Your task to perform on an android device: Go to calendar. Show me events next week Image 0: 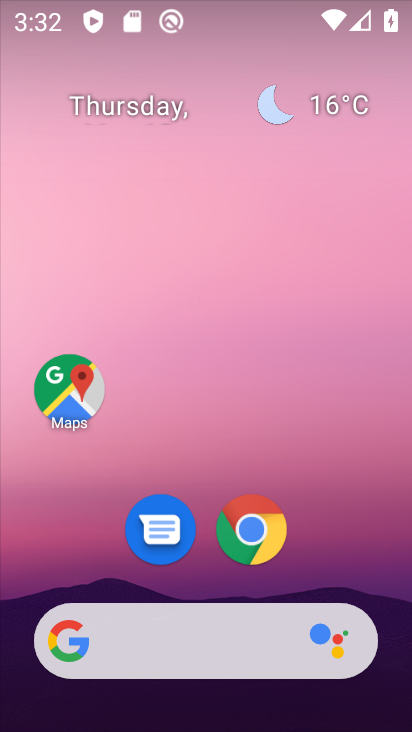
Step 0: drag from (202, 585) to (143, 35)
Your task to perform on an android device: Go to calendar. Show me events next week Image 1: 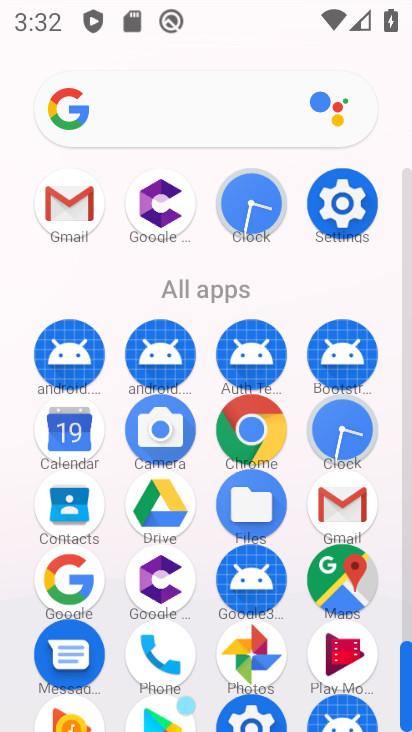
Step 1: click (50, 415)
Your task to perform on an android device: Go to calendar. Show me events next week Image 2: 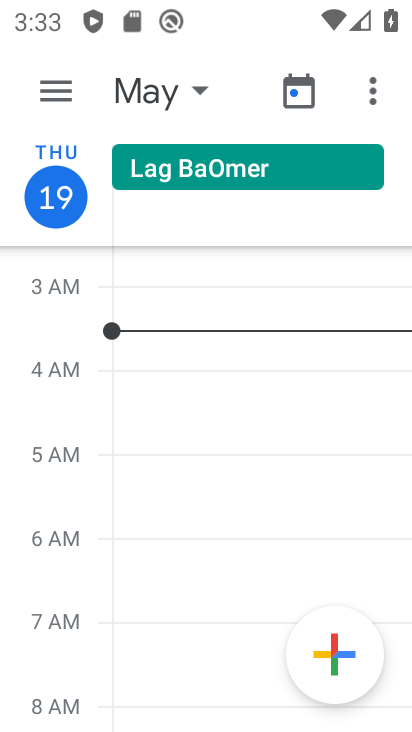
Step 2: click (59, 104)
Your task to perform on an android device: Go to calendar. Show me events next week Image 3: 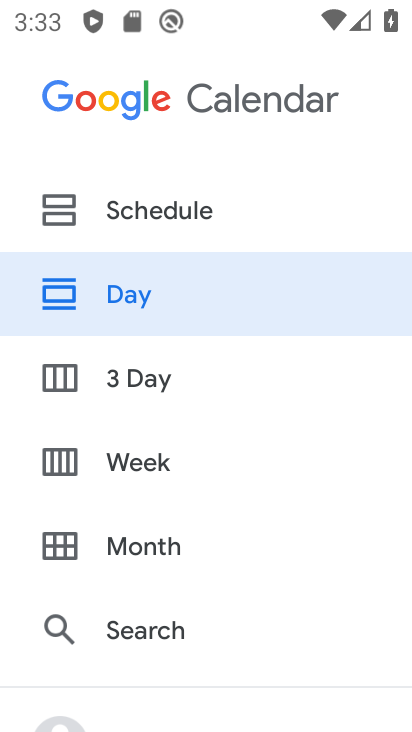
Step 3: click (129, 449)
Your task to perform on an android device: Go to calendar. Show me events next week Image 4: 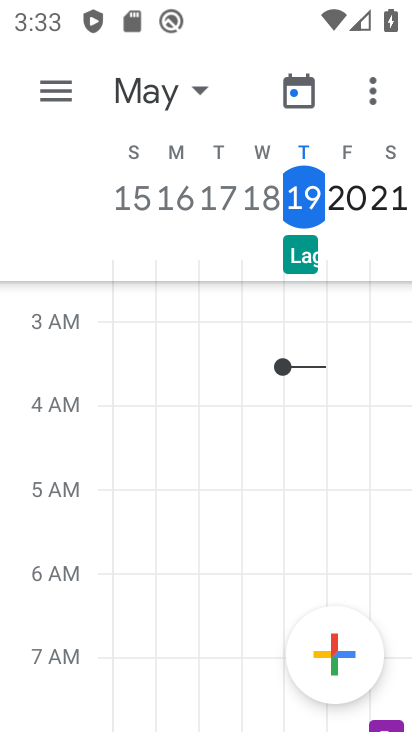
Step 4: task complete